Your task to perform on an android device: Search for vegetarian restaurants on Maps Image 0: 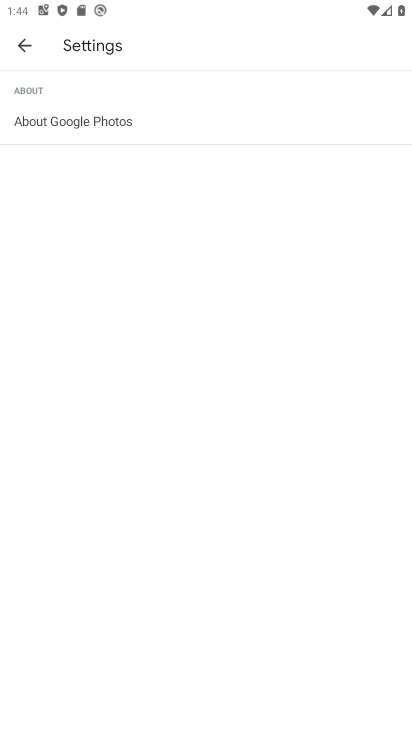
Step 0: press home button
Your task to perform on an android device: Search for vegetarian restaurants on Maps Image 1: 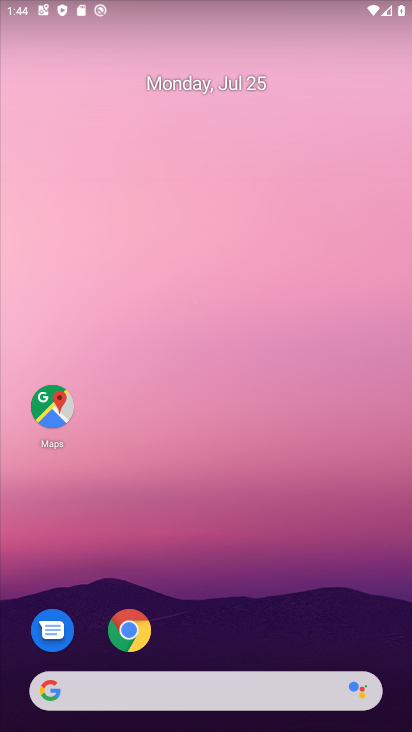
Step 1: click (50, 417)
Your task to perform on an android device: Search for vegetarian restaurants on Maps Image 2: 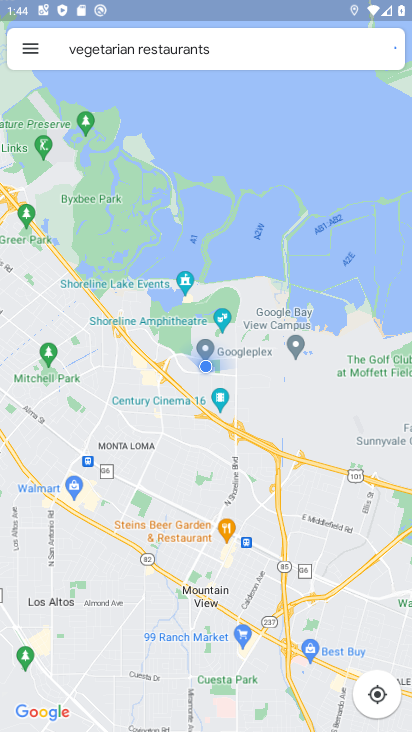
Step 2: click (255, 55)
Your task to perform on an android device: Search for vegetarian restaurants on Maps Image 3: 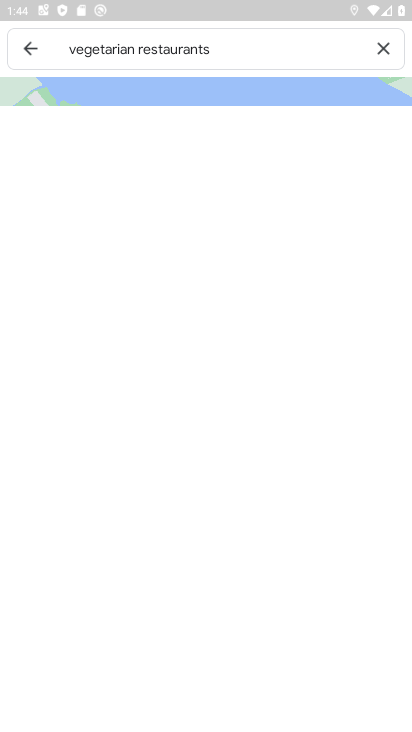
Step 3: click (255, 55)
Your task to perform on an android device: Search for vegetarian restaurants on Maps Image 4: 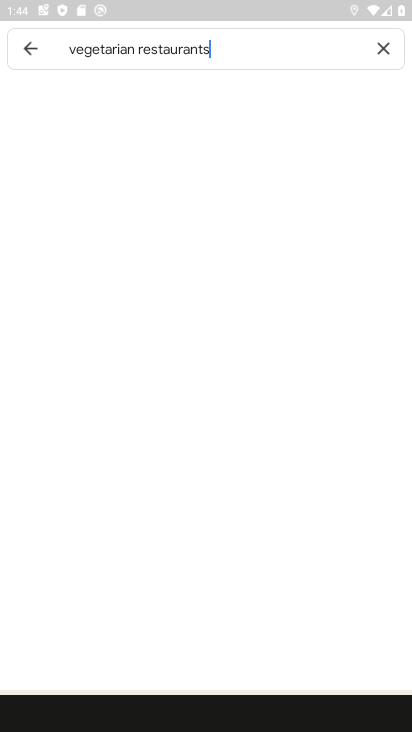
Step 4: click (255, 55)
Your task to perform on an android device: Search for vegetarian restaurants on Maps Image 5: 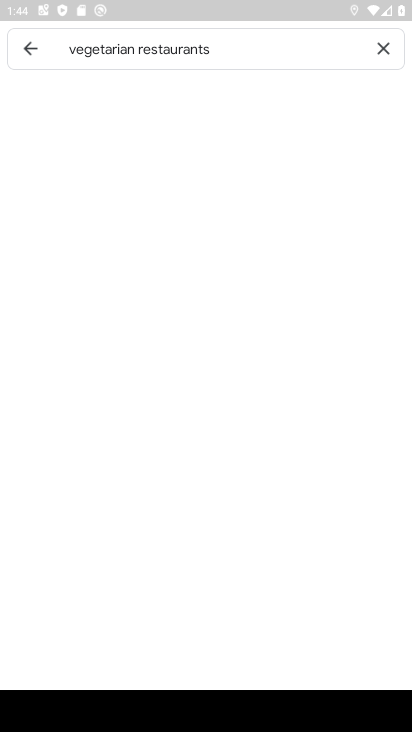
Step 5: click (382, 55)
Your task to perform on an android device: Search for vegetarian restaurants on Maps Image 6: 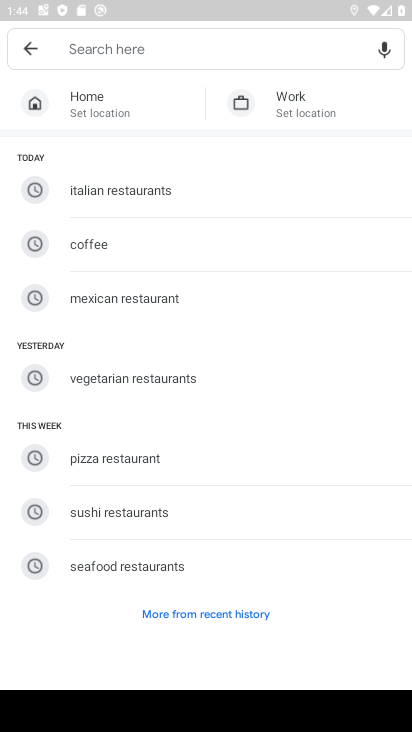
Step 6: task complete